Your task to perform on an android device: What's on my calendar today? Image 0: 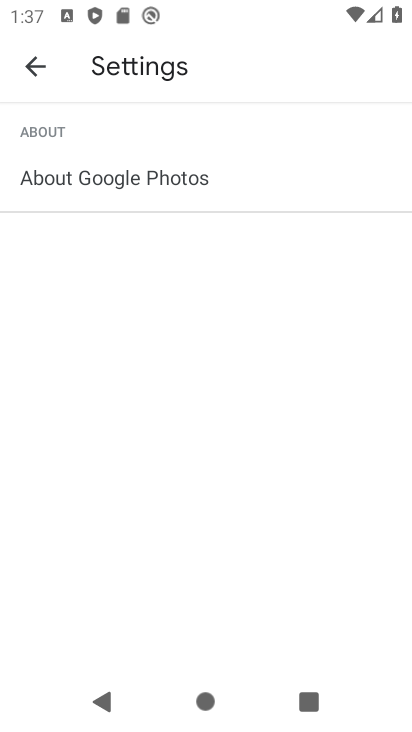
Step 0: press home button
Your task to perform on an android device: What's on my calendar today? Image 1: 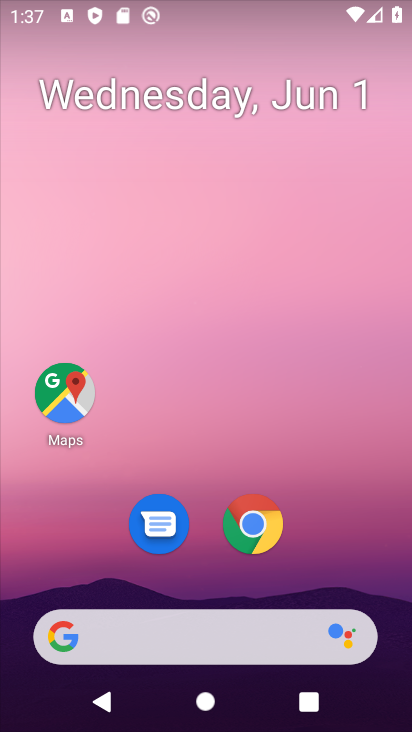
Step 1: drag from (326, 506) to (310, 14)
Your task to perform on an android device: What's on my calendar today? Image 2: 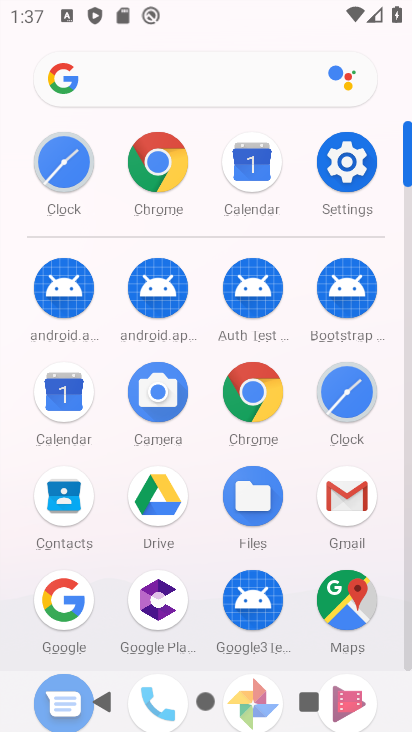
Step 2: click (73, 389)
Your task to perform on an android device: What's on my calendar today? Image 3: 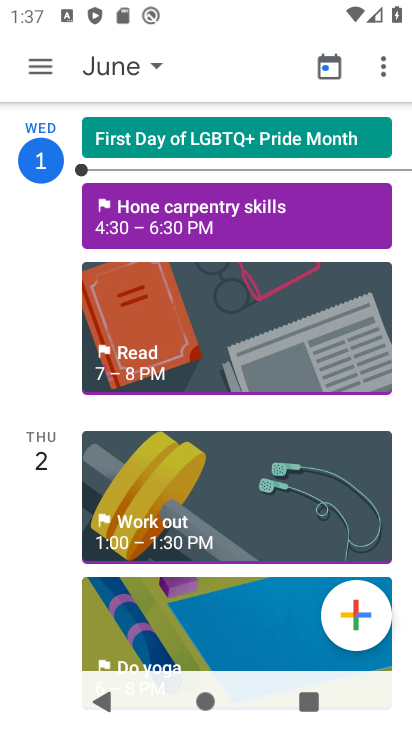
Step 3: task complete